Your task to perform on an android device: find snoozed emails in the gmail app Image 0: 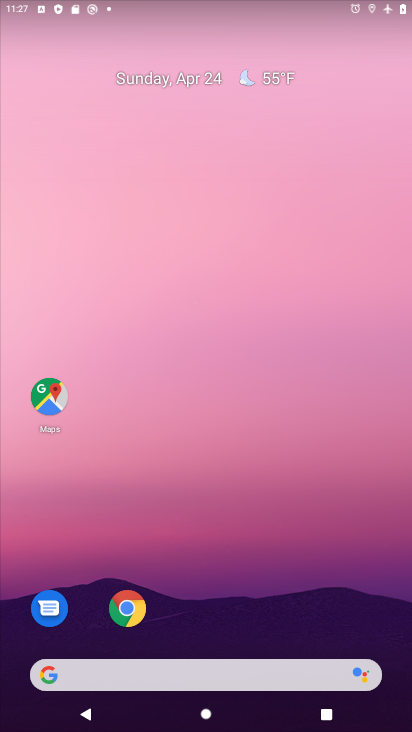
Step 0: drag from (397, 634) to (298, 30)
Your task to perform on an android device: find snoozed emails in the gmail app Image 1: 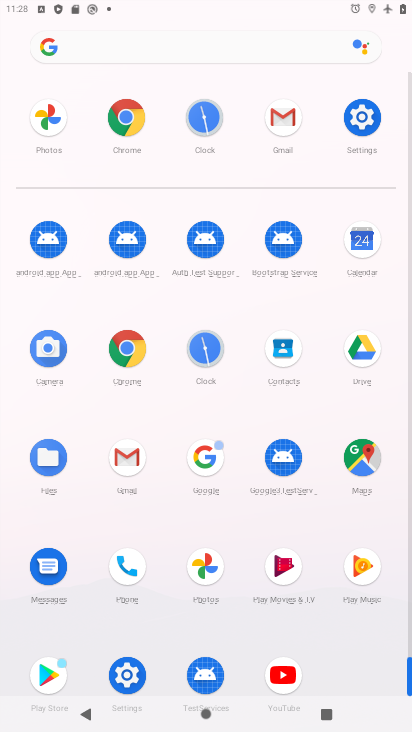
Step 1: click (123, 458)
Your task to perform on an android device: find snoozed emails in the gmail app Image 2: 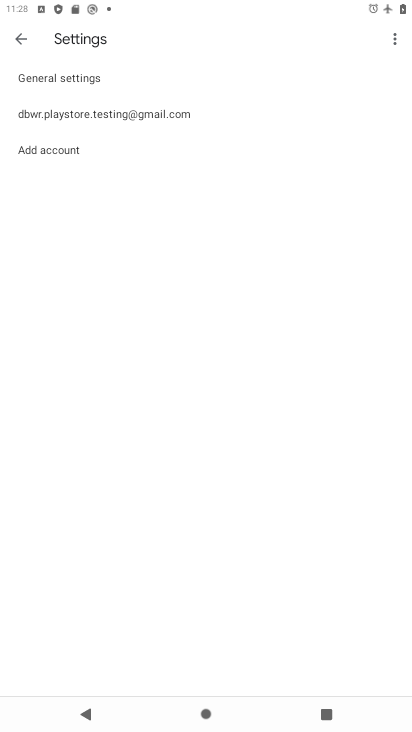
Step 2: press back button
Your task to perform on an android device: find snoozed emails in the gmail app Image 3: 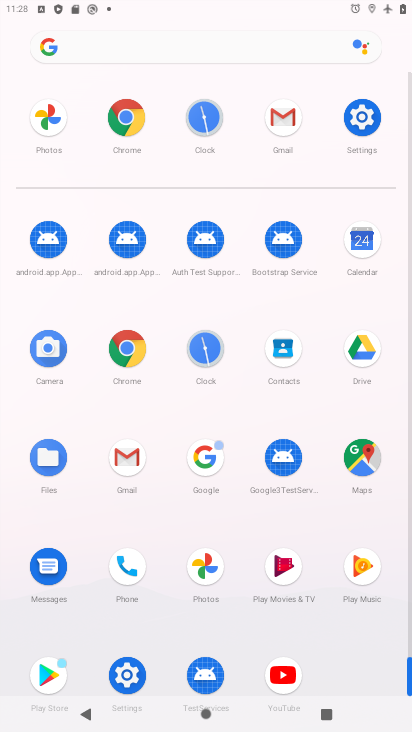
Step 3: click (128, 456)
Your task to perform on an android device: find snoozed emails in the gmail app Image 4: 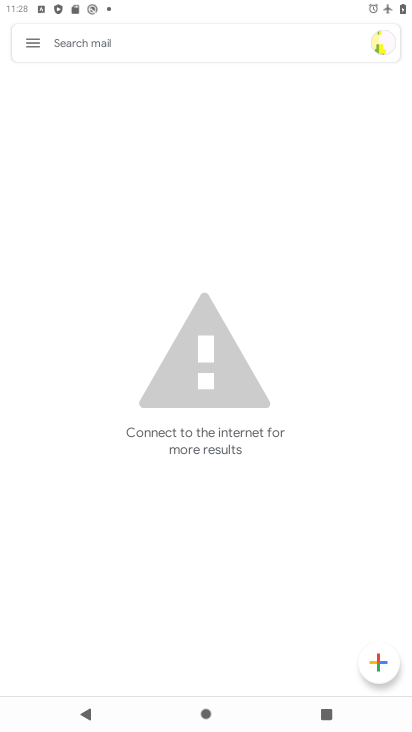
Step 4: click (33, 43)
Your task to perform on an android device: find snoozed emails in the gmail app Image 5: 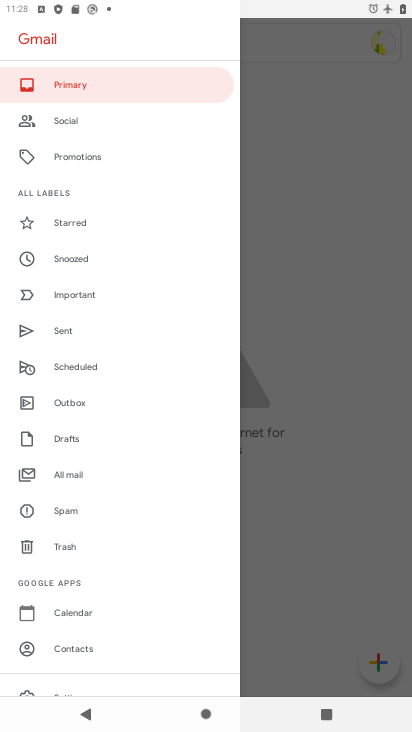
Step 5: click (74, 260)
Your task to perform on an android device: find snoozed emails in the gmail app Image 6: 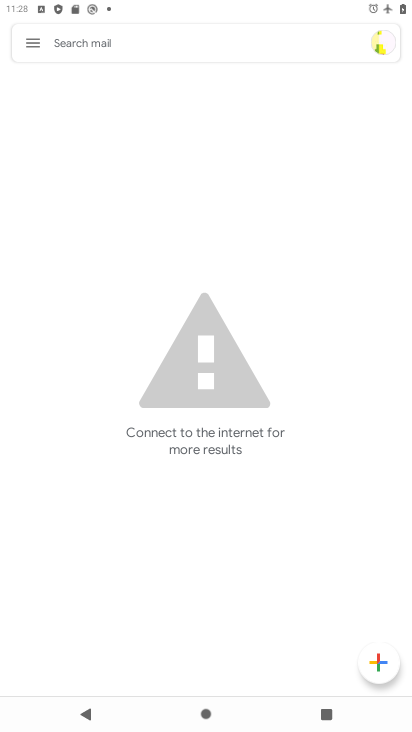
Step 6: task complete